Your task to perform on an android device: View the shopping cart on target. Image 0: 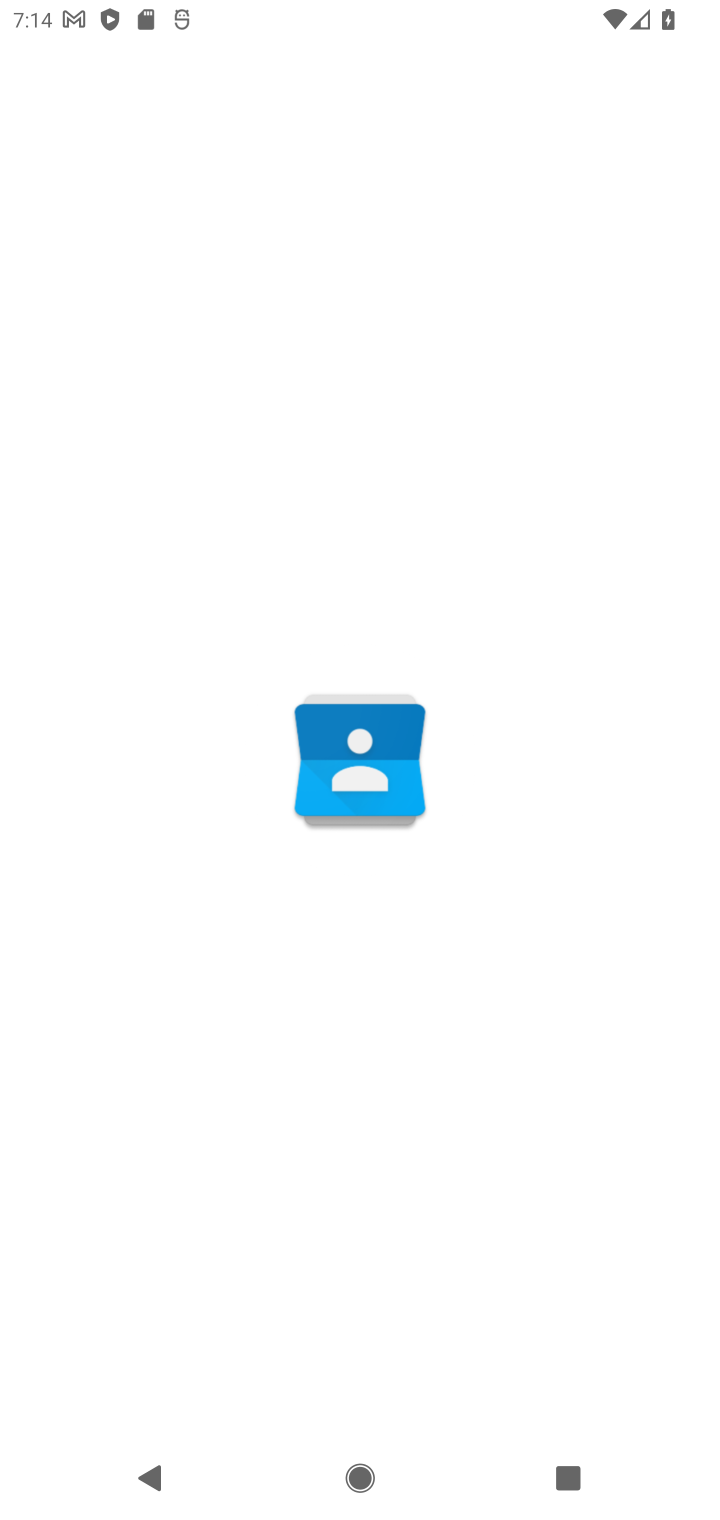
Step 0: press home button
Your task to perform on an android device: View the shopping cart on target. Image 1: 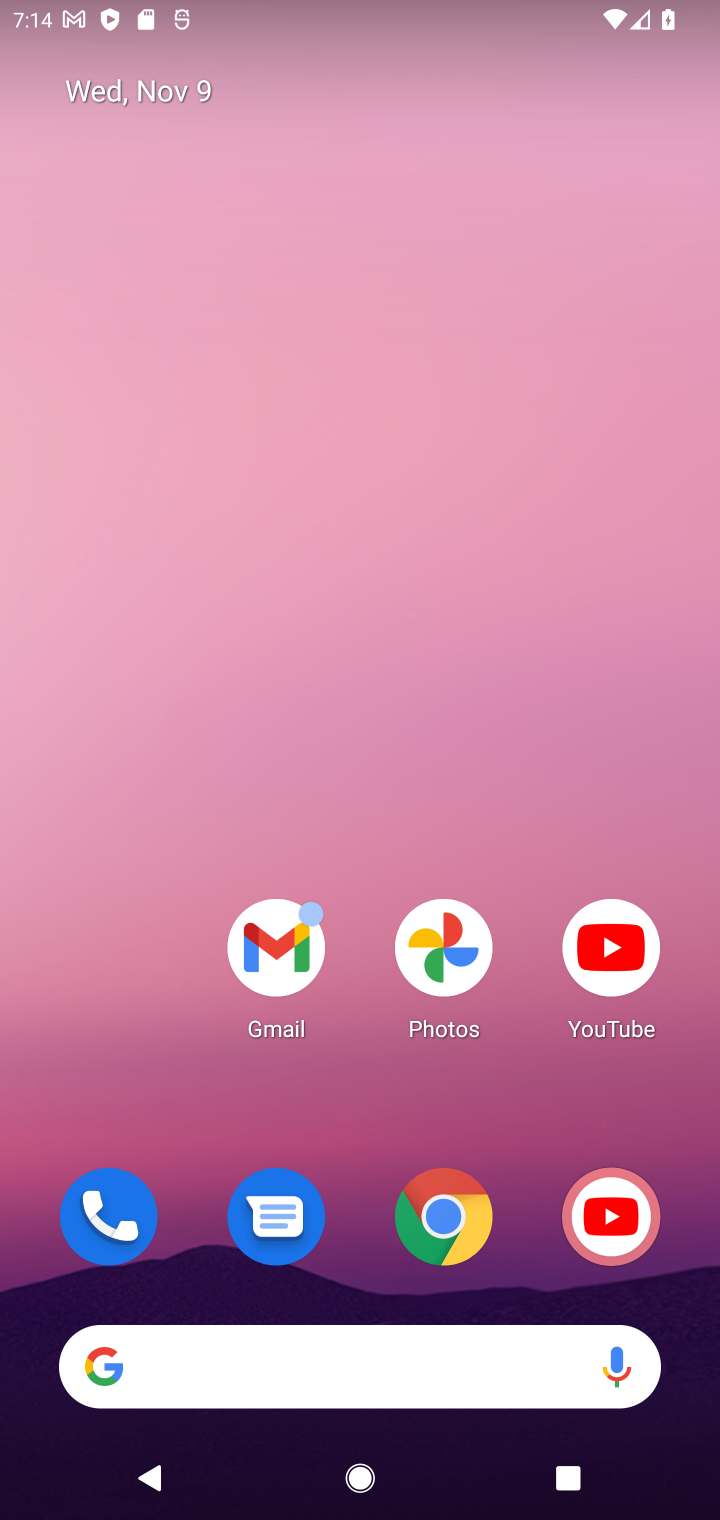
Step 1: drag from (390, 447) to (371, 55)
Your task to perform on an android device: View the shopping cart on target. Image 2: 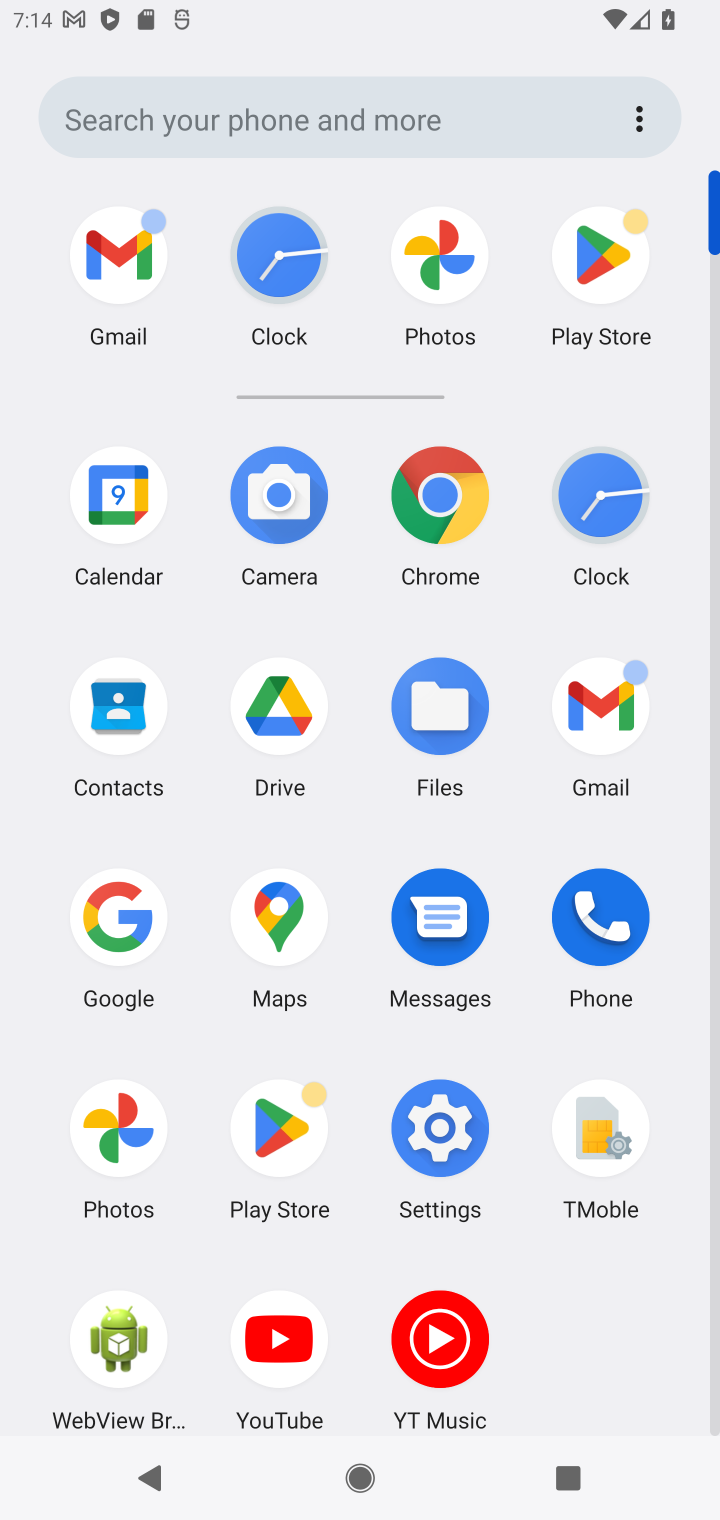
Step 2: click (447, 504)
Your task to perform on an android device: View the shopping cart on target. Image 3: 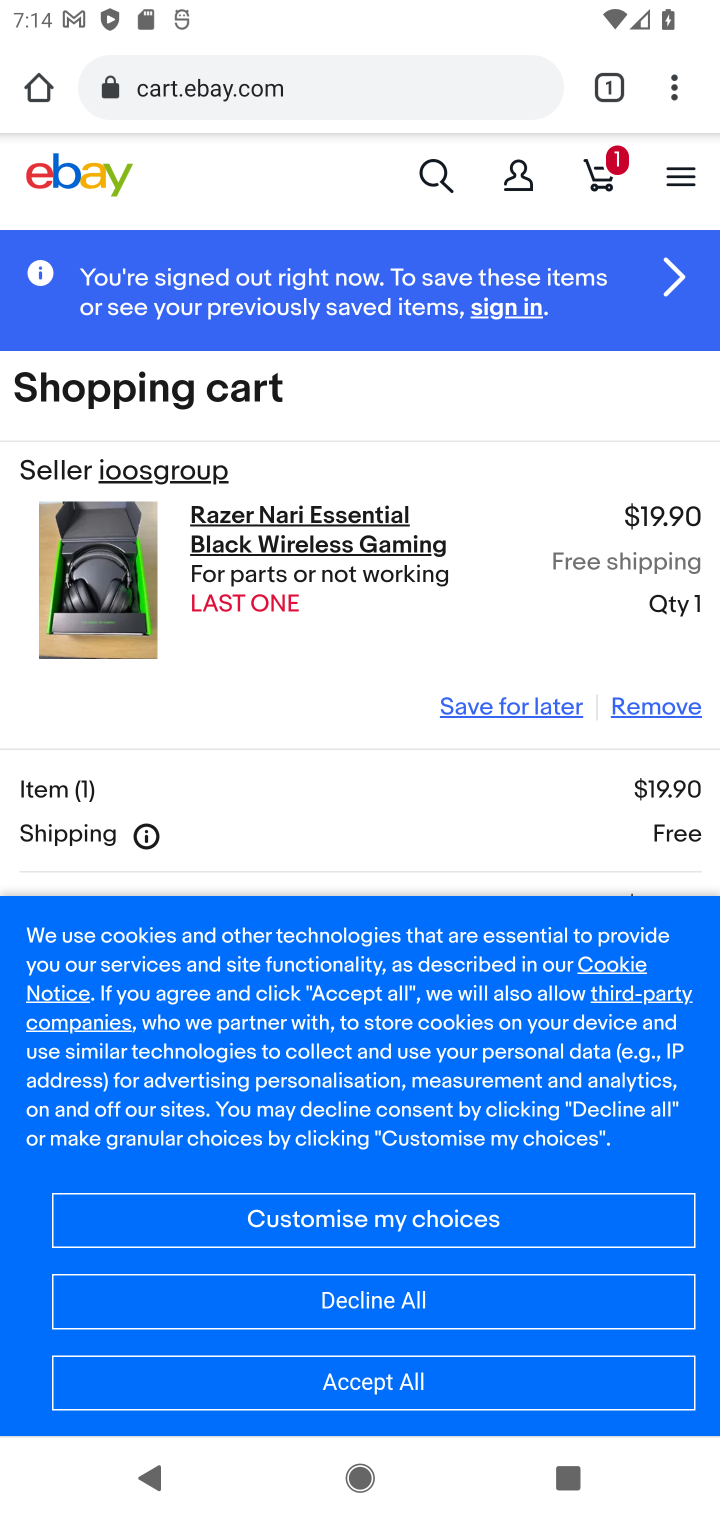
Step 3: click (389, 86)
Your task to perform on an android device: View the shopping cart on target. Image 4: 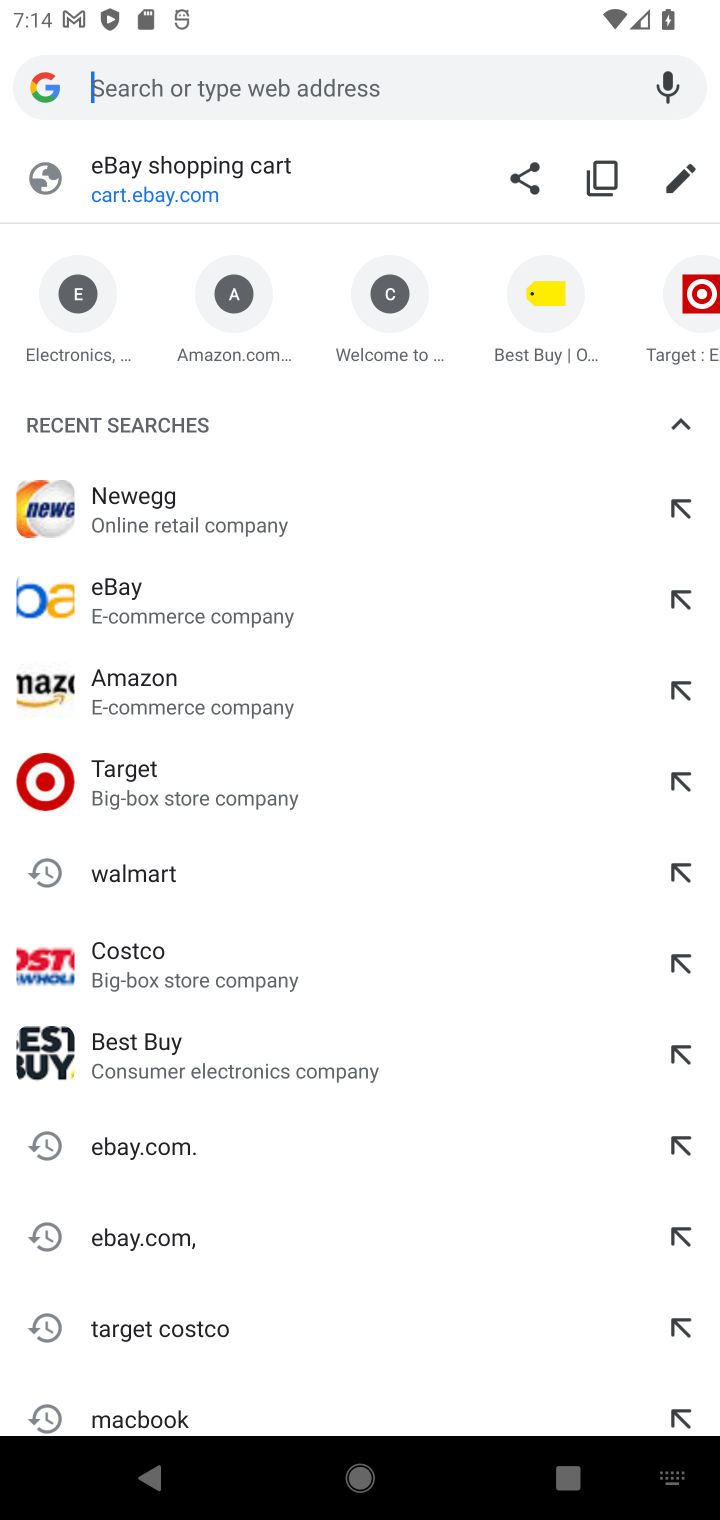
Step 4: type "target.com"
Your task to perform on an android device: View the shopping cart on target. Image 5: 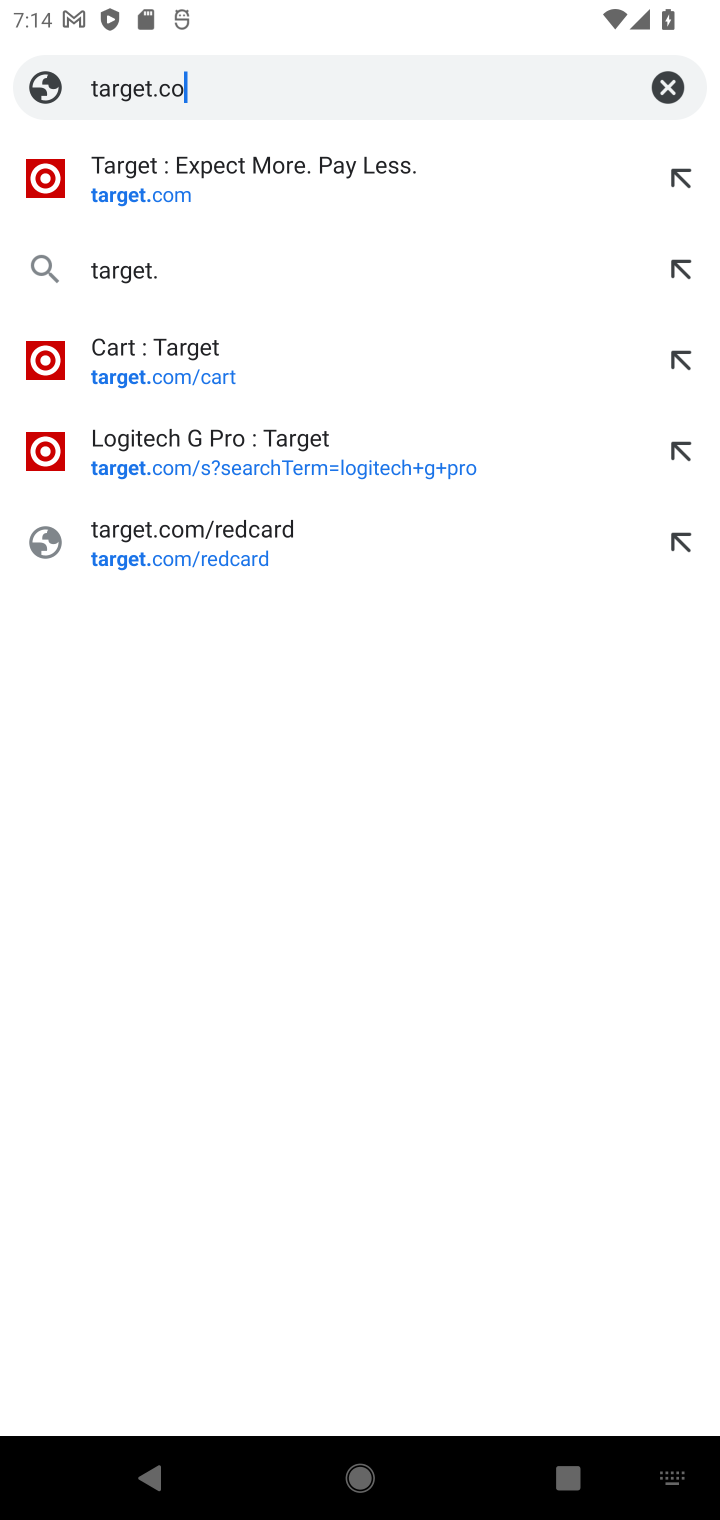
Step 5: press enter
Your task to perform on an android device: View the shopping cart on target. Image 6: 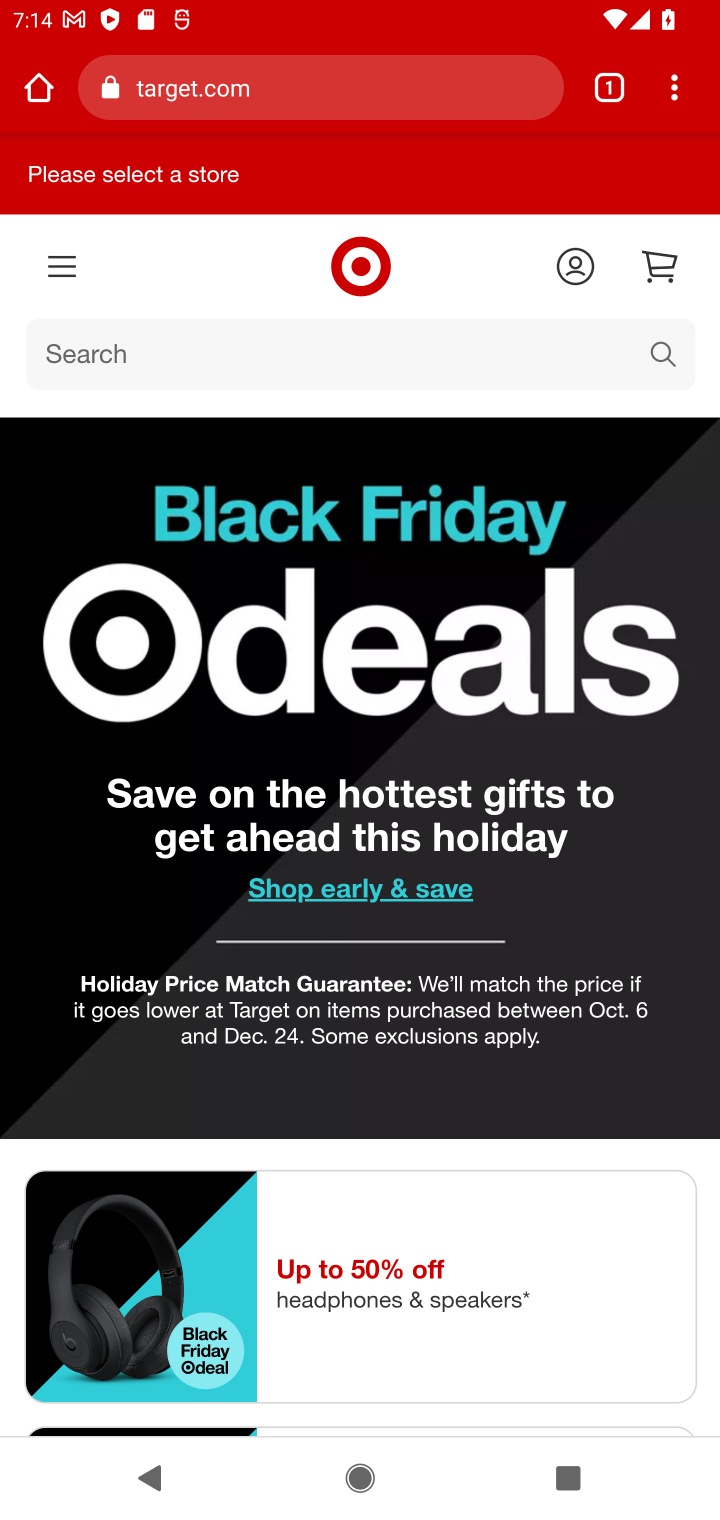
Step 6: click (321, 366)
Your task to perform on an android device: View the shopping cart on target. Image 7: 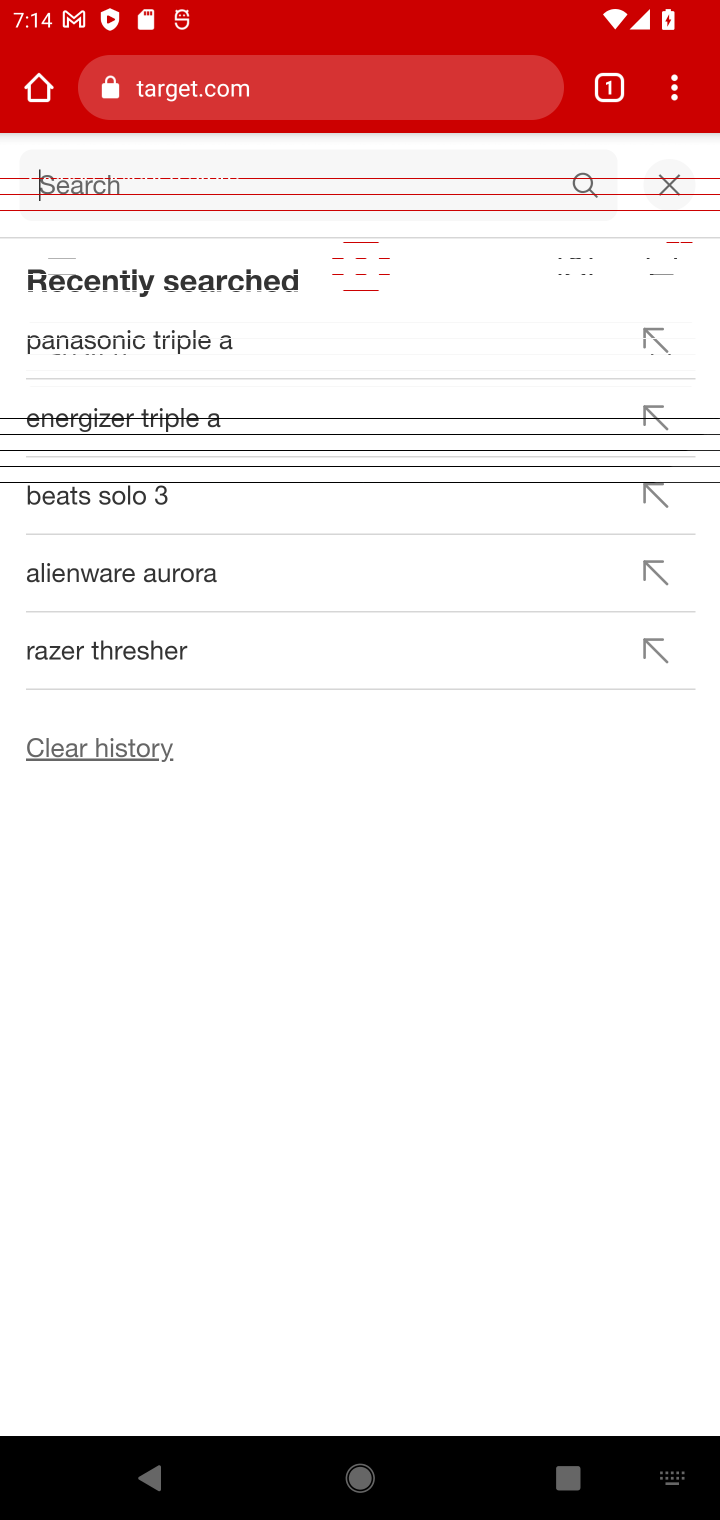
Step 7: click (670, 195)
Your task to perform on an android device: View the shopping cart on target. Image 8: 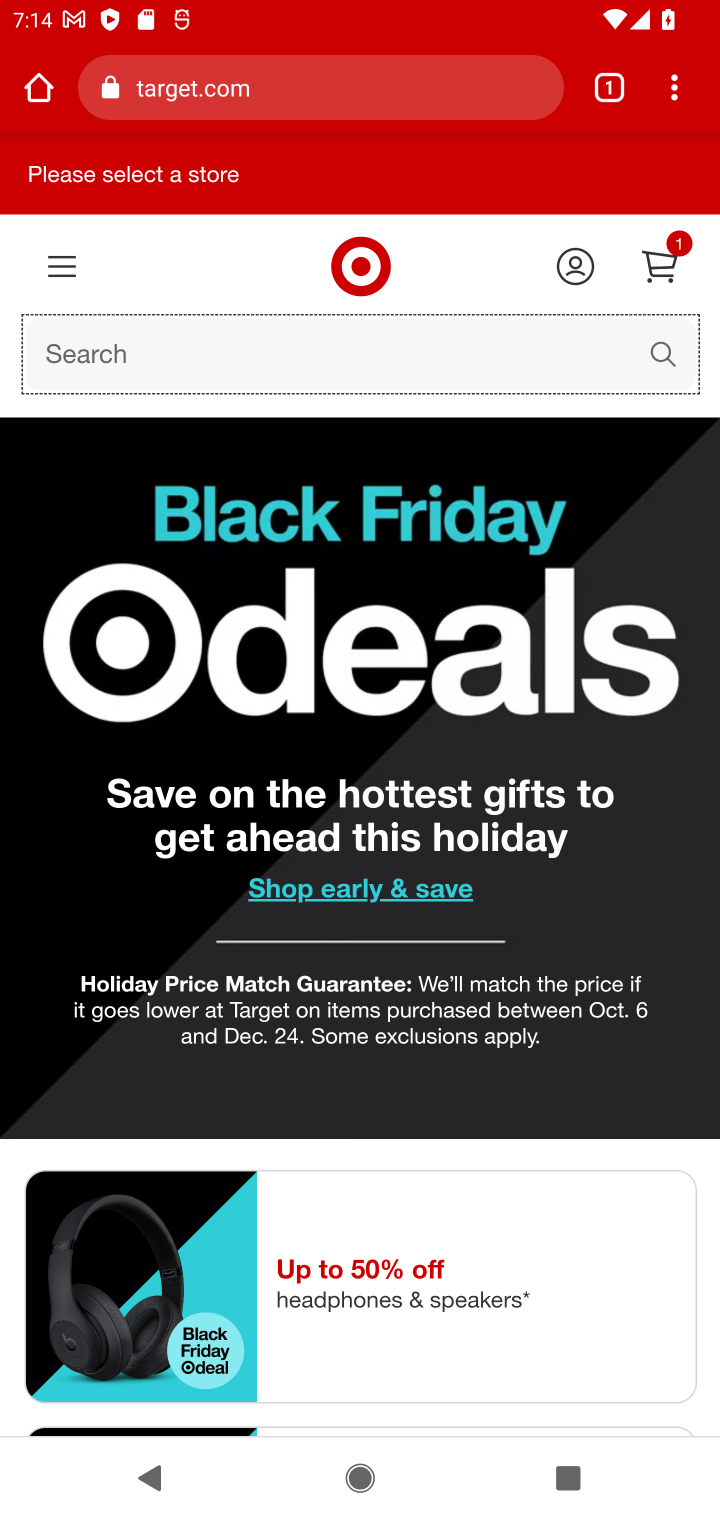
Step 8: click (677, 255)
Your task to perform on an android device: View the shopping cart on target. Image 9: 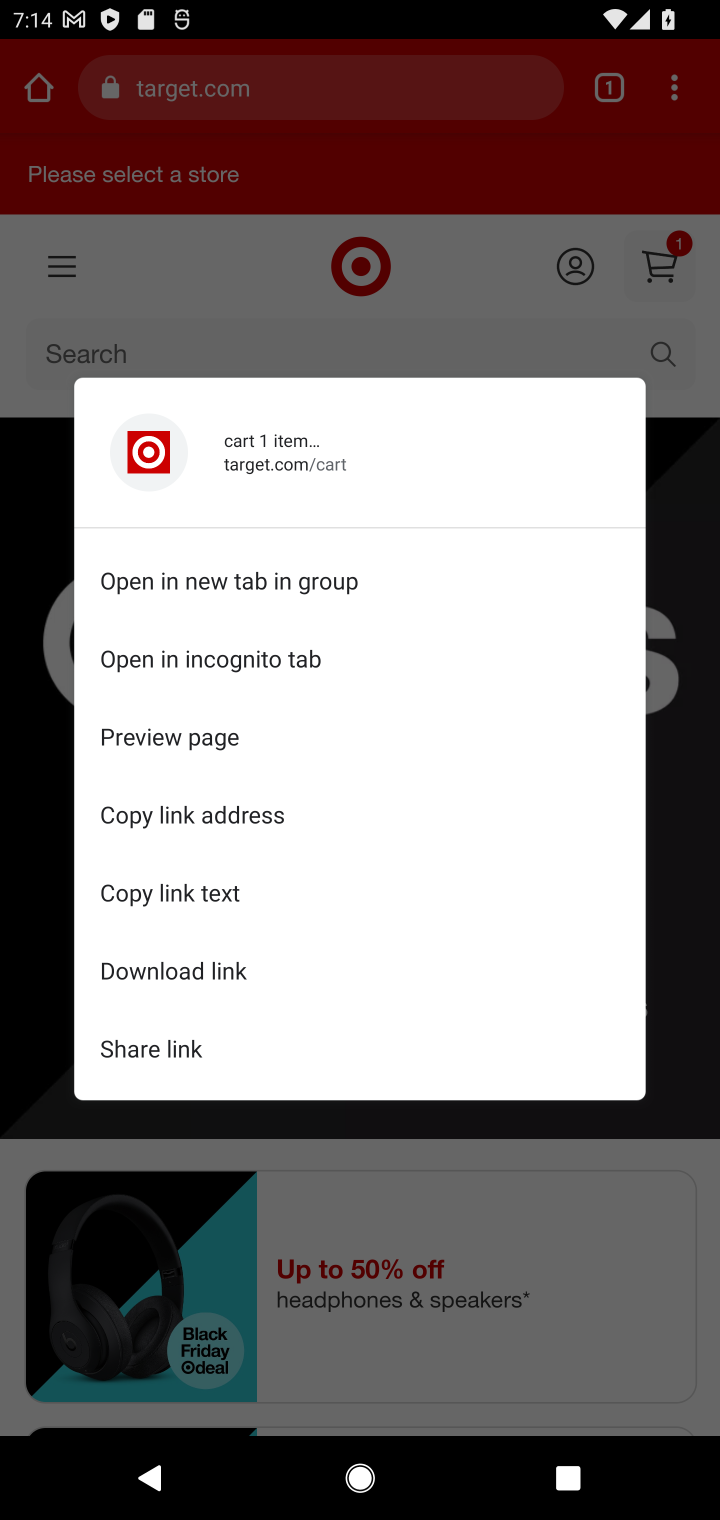
Step 9: click (677, 255)
Your task to perform on an android device: View the shopping cart on target. Image 10: 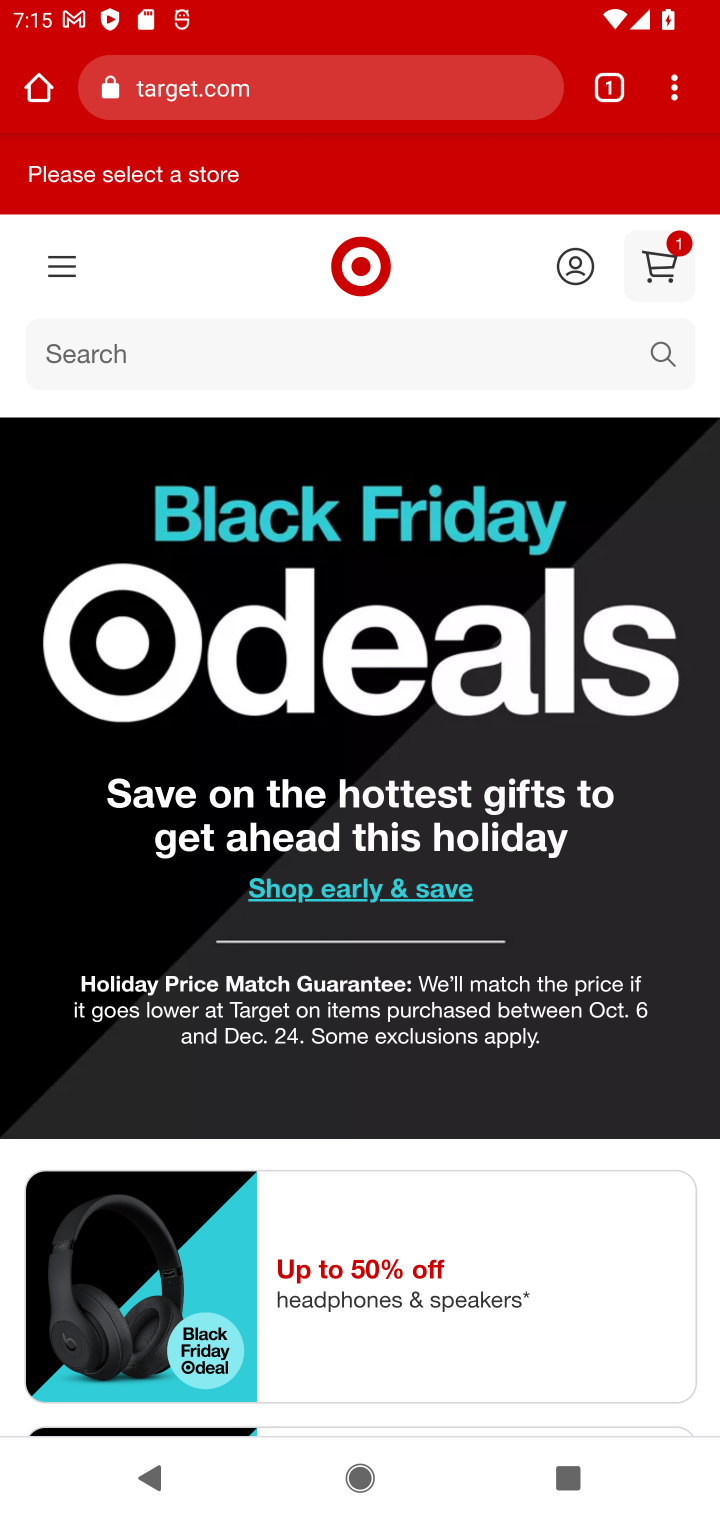
Step 10: click (674, 248)
Your task to perform on an android device: View the shopping cart on target. Image 11: 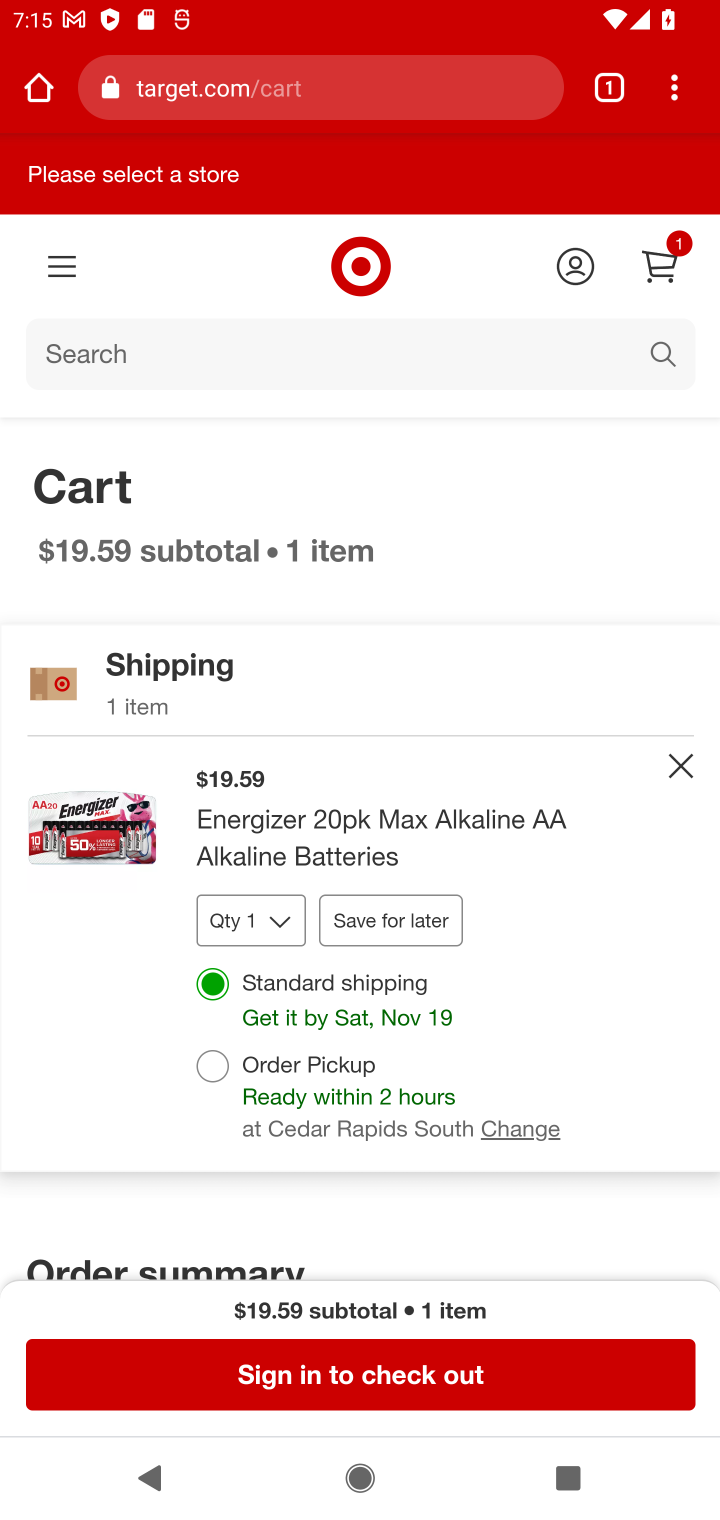
Step 11: task complete